Your task to perform on an android device: check out phone information Image 0: 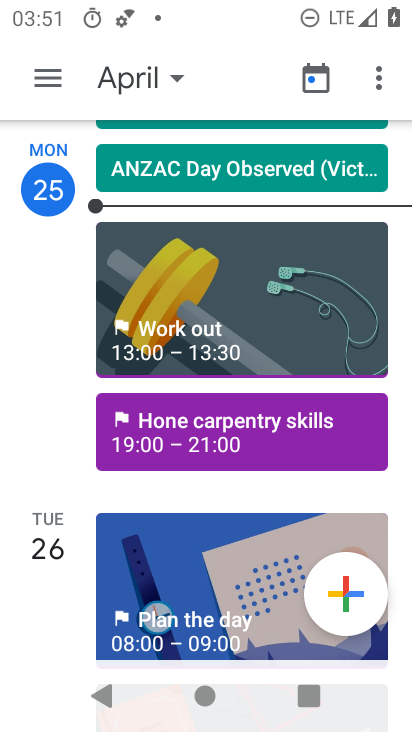
Step 0: press home button
Your task to perform on an android device: check out phone information Image 1: 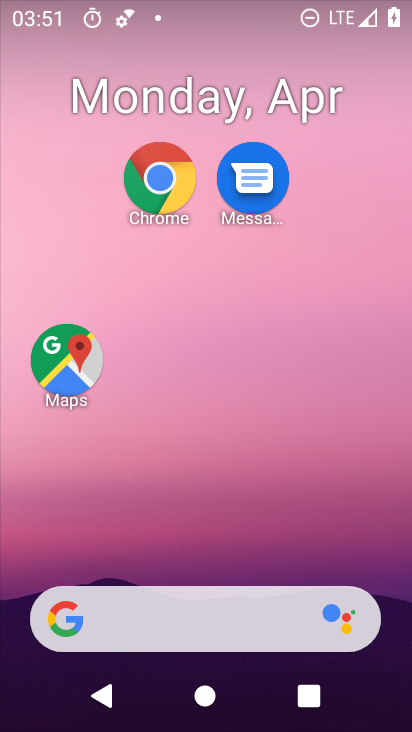
Step 1: drag from (260, 562) to (204, 0)
Your task to perform on an android device: check out phone information Image 2: 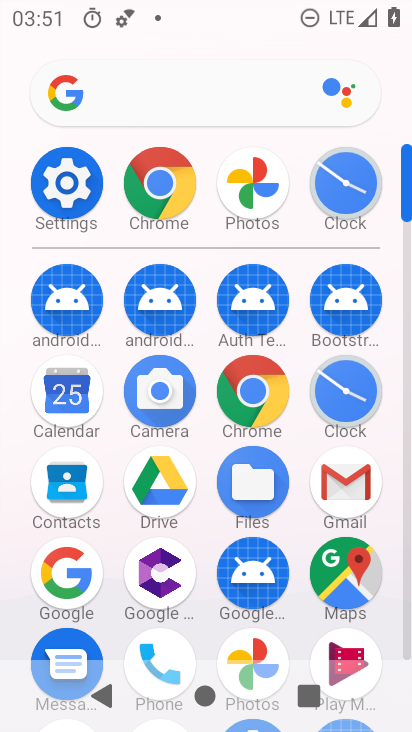
Step 2: drag from (295, 625) to (304, 258)
Your task to perform on an android device: check out phone information Image 3: 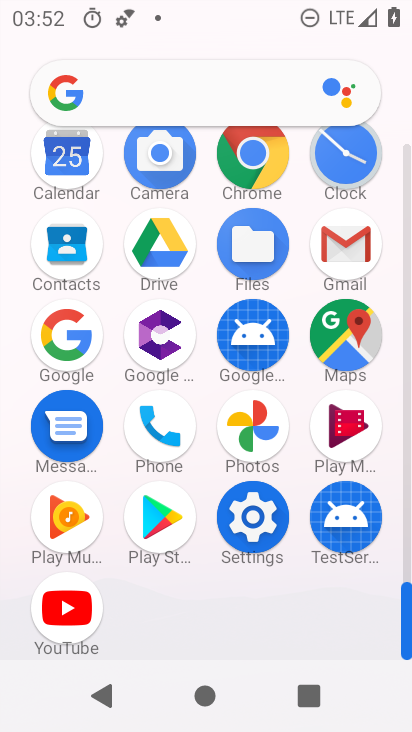
Step 3: click (254, 519)
Your task to perform on an android device: check out phone information Image 4: 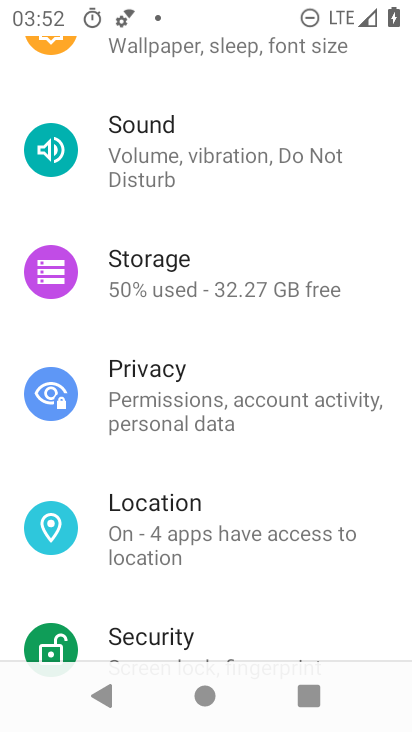
Step 4: drag from (232, 272) to (252, 59)
Your task to perform on an android device: check out phone information Image 5: 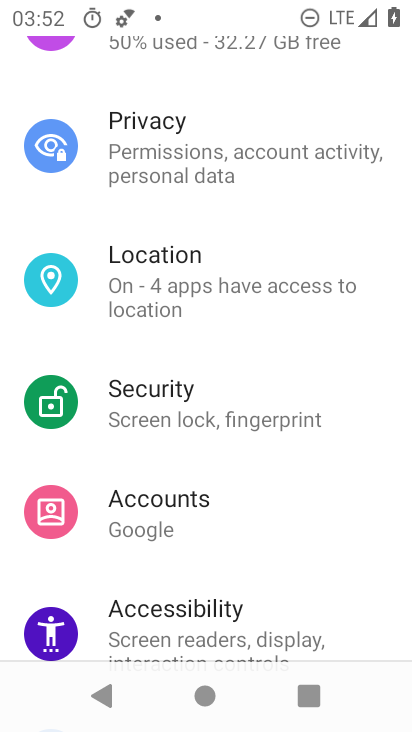
Step 5: drag from (292, 632) to (299, 88)
Your task to perform on an android device: check out phone information Image 6: 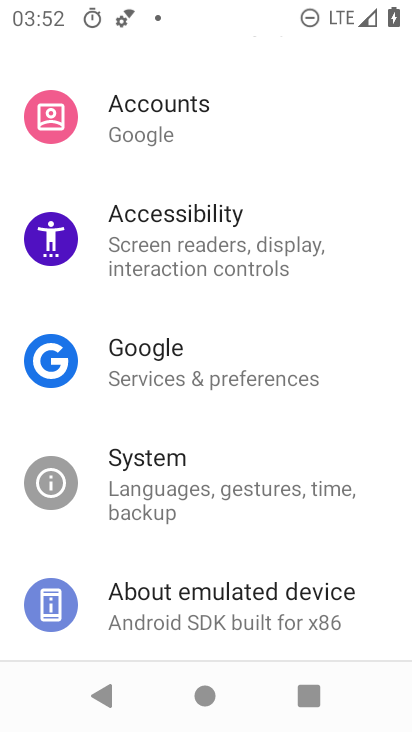
Step 6: click (221, 617)
Your task to perform on an android device: check out phone information Image 7: 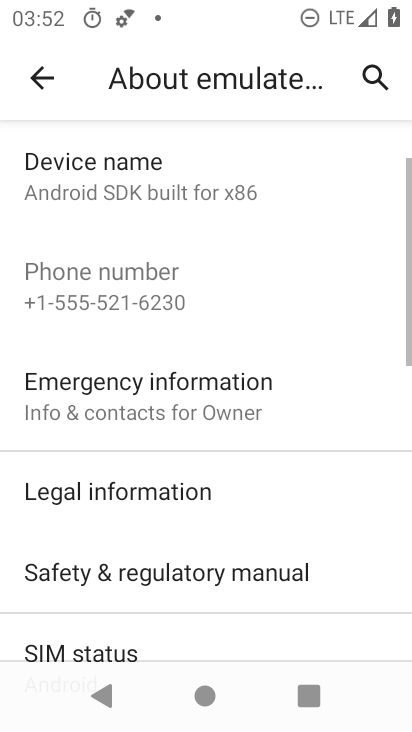
Step 7: task complete